Your task to perform on an android device: turn notification dots off Image 0: 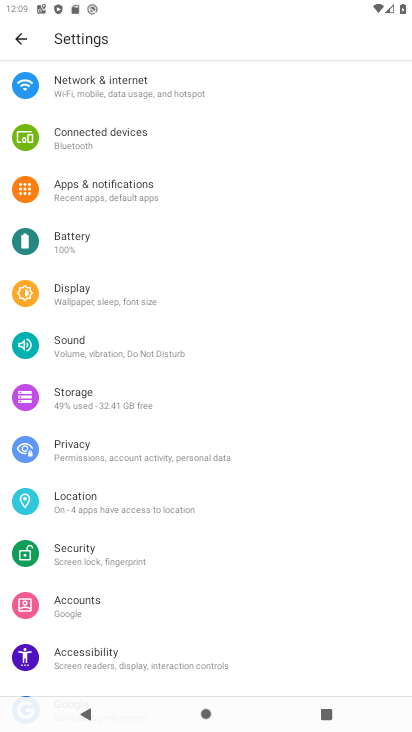
Step 0: press home button
Your task to perform on an android device: turn notification dots off Image 1: 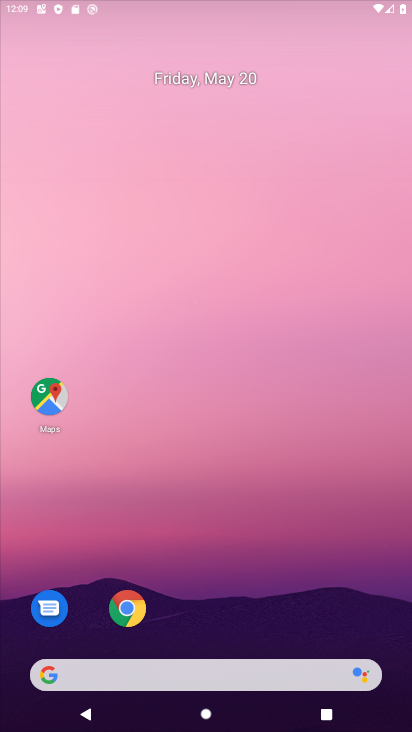
Step 1: drag from (363, 599) to (298, 137)
Your task to perform on an android device: turn notification dots off Image 2: 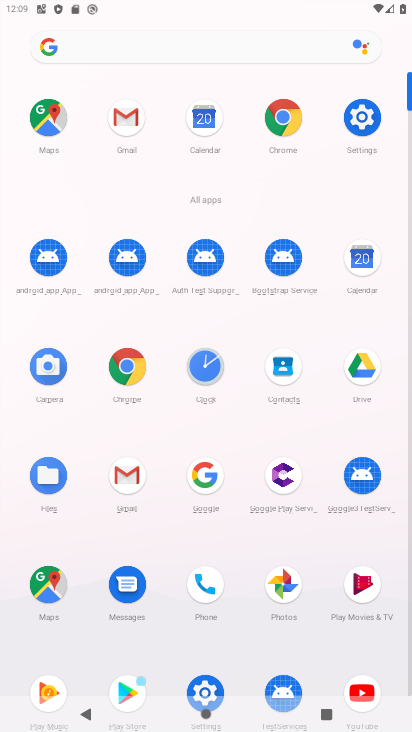
Step 2: click (362, 117)
Your task to perform on an android device: turn notification dots off Image 3: 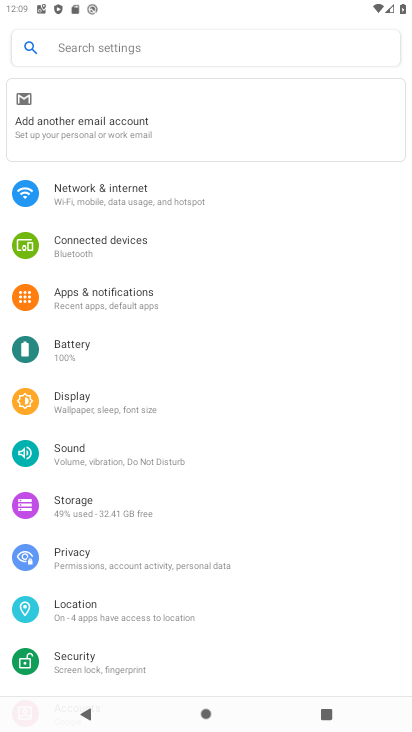
Step 3: click (141, 292)
Your task to perform on an android device: turn notification dots off Image 4: 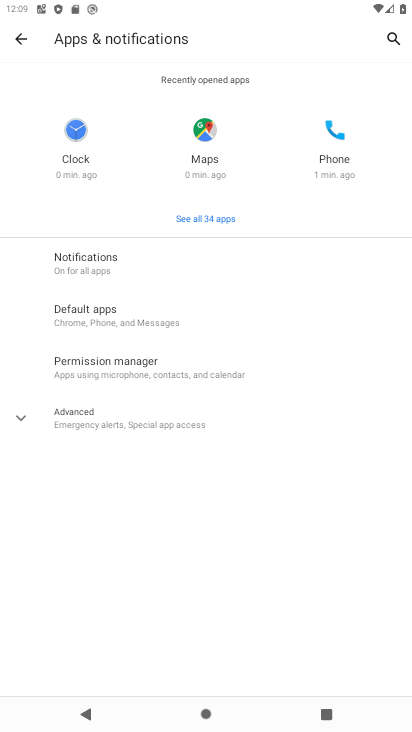
Step 4: click (138, 271)
Your task to perform on an android device: turn notification dots off Image 5: 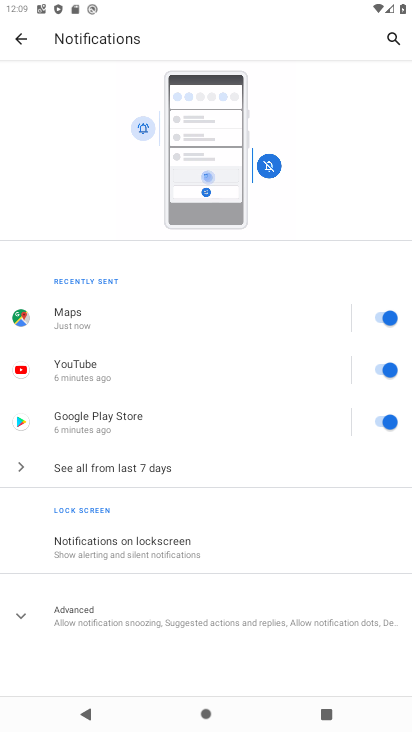
Step 5: click (225, 617)
Your task to perform on an android device: turn notification dots off Image 6: 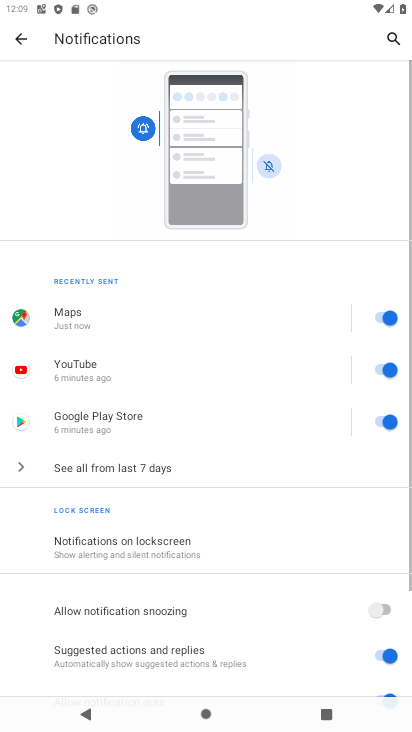
Step 6: drag from (258, 640) to (261, 359)
Your task to perform on an android device: turn notification dots off Image 7: 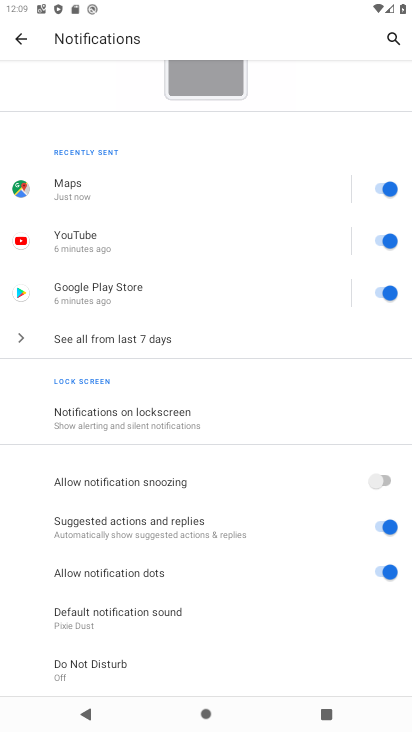
Step 7: click (384, 569)
Your task to perform on an android device: turn notification dots off Image 8: 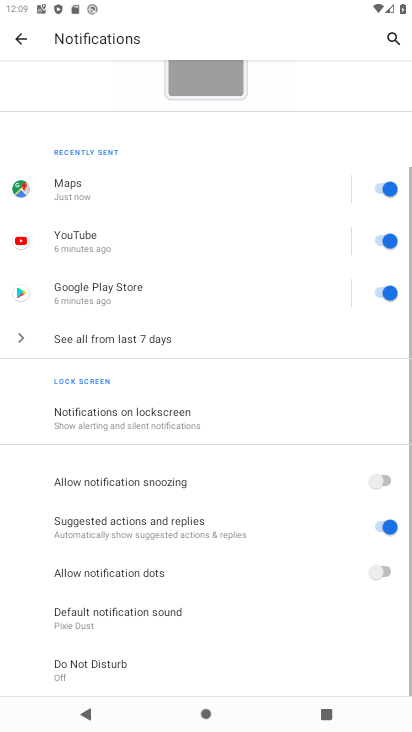
Step 8: task complete